Your task to perform on an android device: Check the news Image 0: 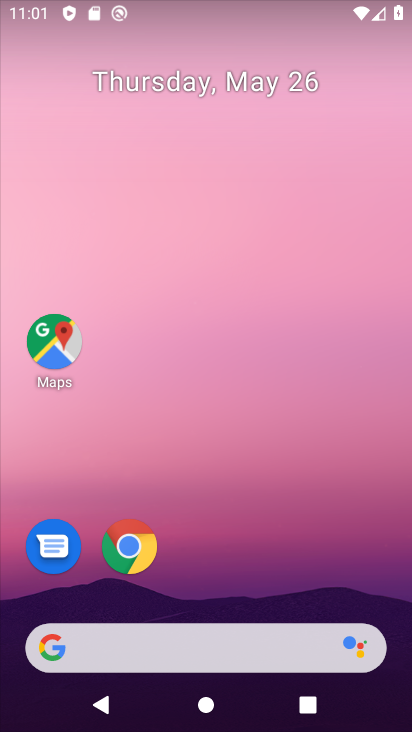
Step 0: drag from (206, 546) to (202, 75)
Your task to perform on an android device: Check the news Image 1: 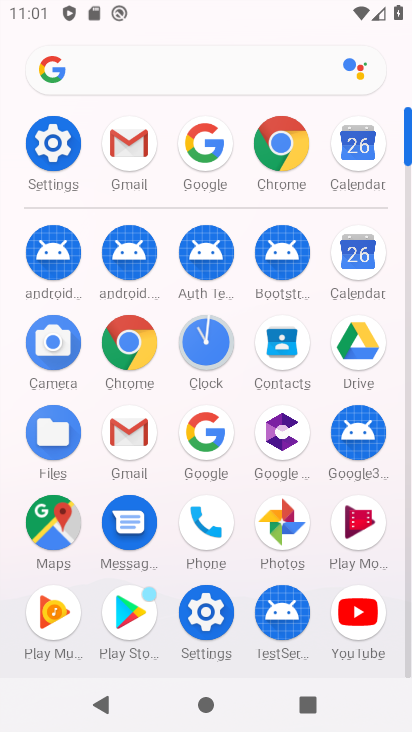
Step 1: click (204, 440)
Your task to perform on an android device: Check the news Image 2: 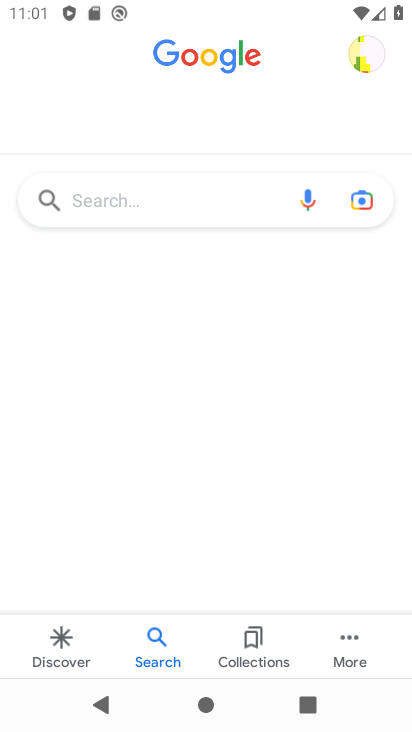
Step 2: click (163, 199)
Your task to perform on an android device: Check the news Image 3: 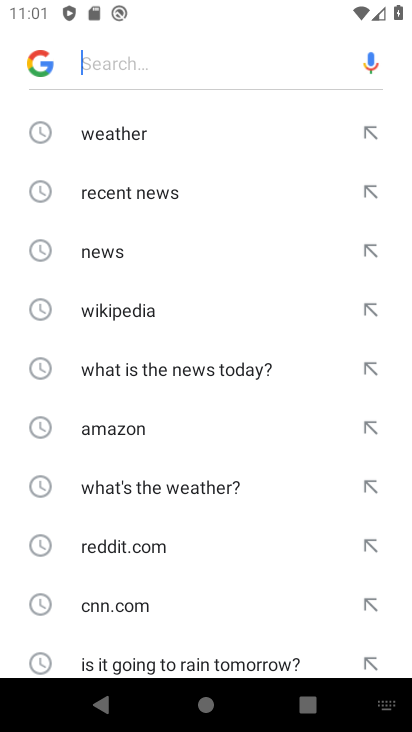
Step 3: click (143, 249)
Your task to perform on an android device: Check the news Image 4: 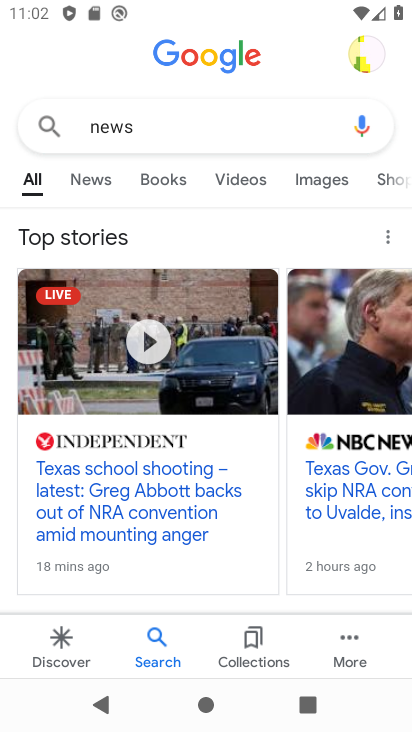
Step 4: task complete